Your task to perform on an android device: Go to settings Image 0: 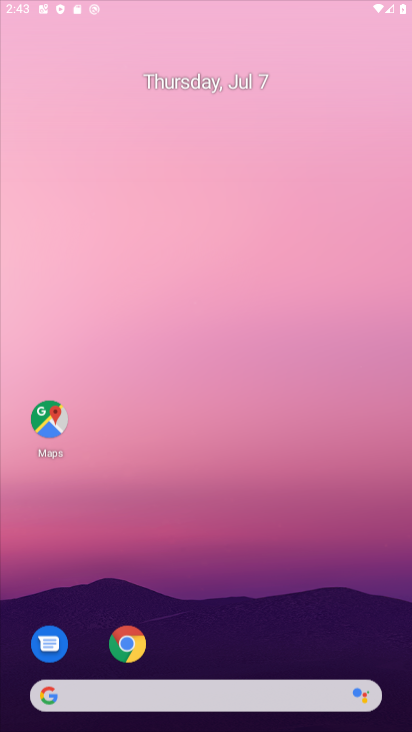
Step 0: press home button
Your task to perform on an android device: Go to settings Image 1: 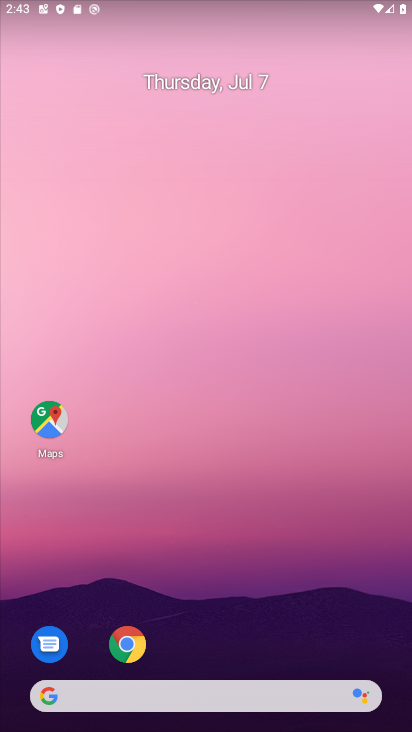
Step 1: drag from (313, 610) to (281, 85)
Your task to perform on an android device: Go to settings Image 2: 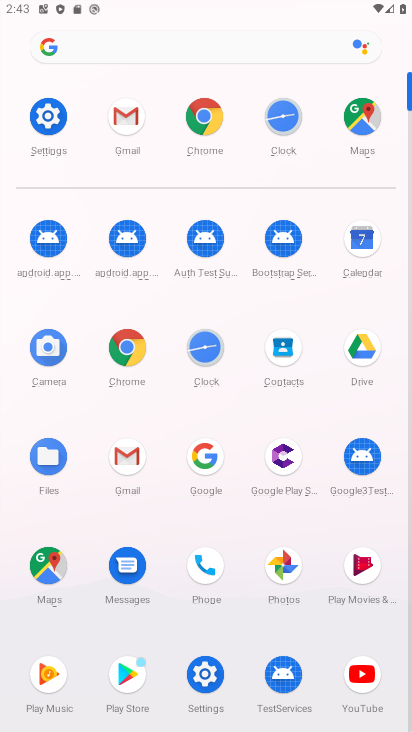
Step 2: click (43, 116)
Your task to perform on an android device: Go to settings Image 3: 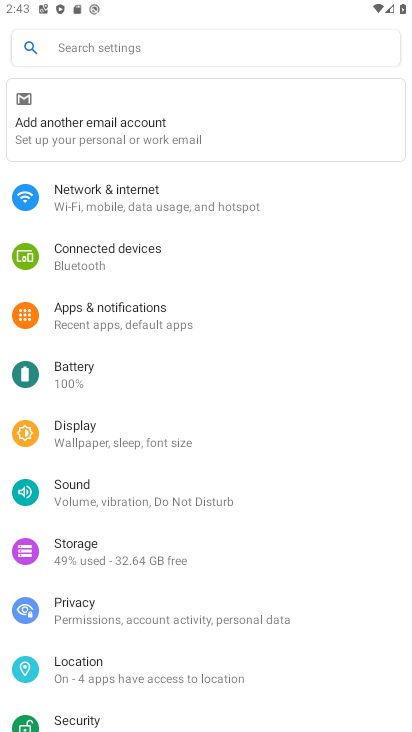
Step 3: task complete